Your task to perform on an android device: toggle notifications settings in the gmail app Image 0: 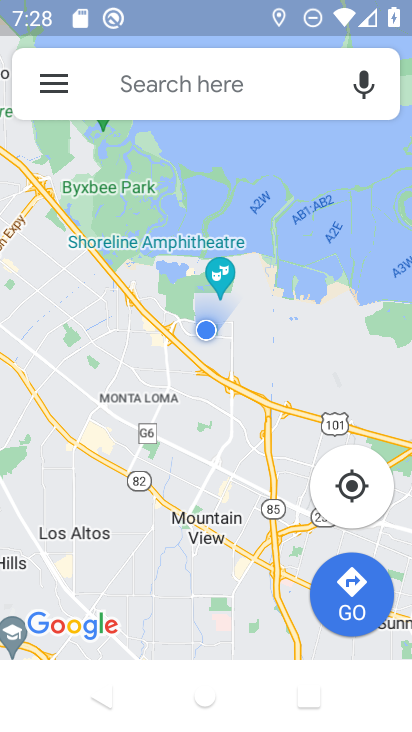
Step 0: press home button
Your task to perform on an android device: toggle notifications settings in the gmail app Image 1: 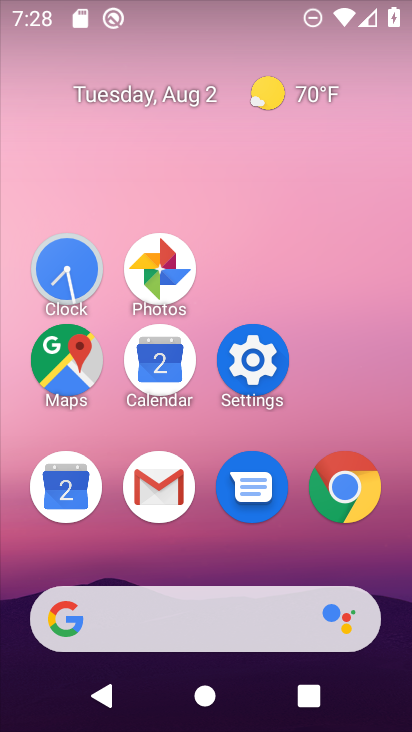
Step 1: click (155, 486)
Your task to perform on an android device: toggle notifications settings in the gmail app Image 2: 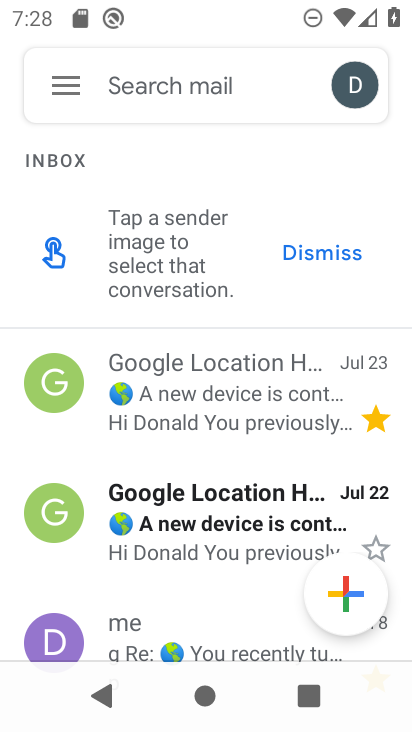
Step 2: click (66, 79)
Your task to perform on an android device: toggle notifications settings in the gmail app Image 3: 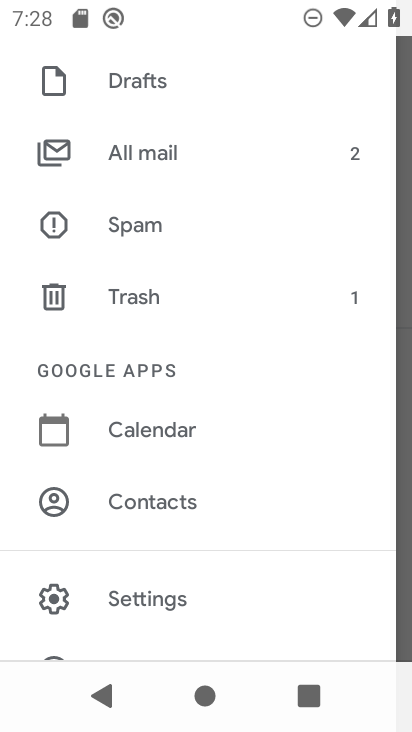
Step 3: click (144, 595)
Your task to perform on an android device: toggle notifications settings in the gmail app Image 4: 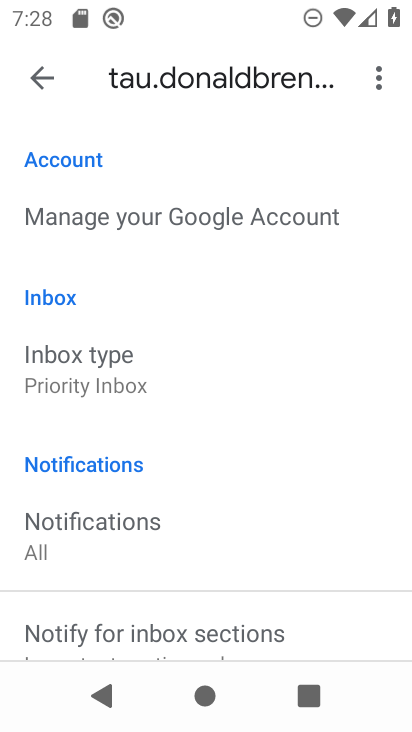
Step 4: click (35, 67)
Your task to perform on an android device: toggle notifications settings in the gmail app Image 5: 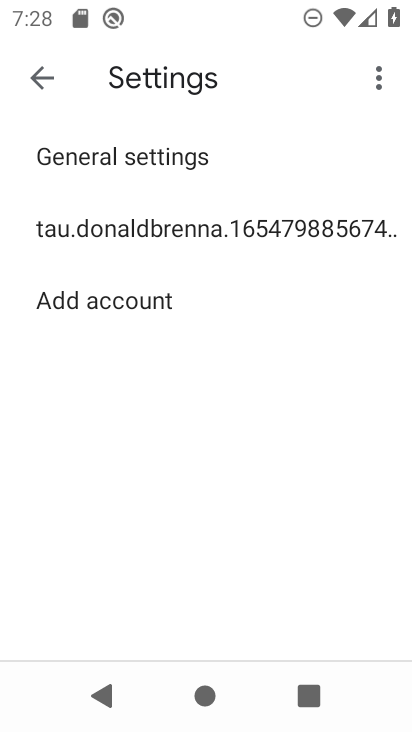
Step 5: click (116, 156)
Your task to perform on an android device: toggle notifications settings in the gmail app Image 6: 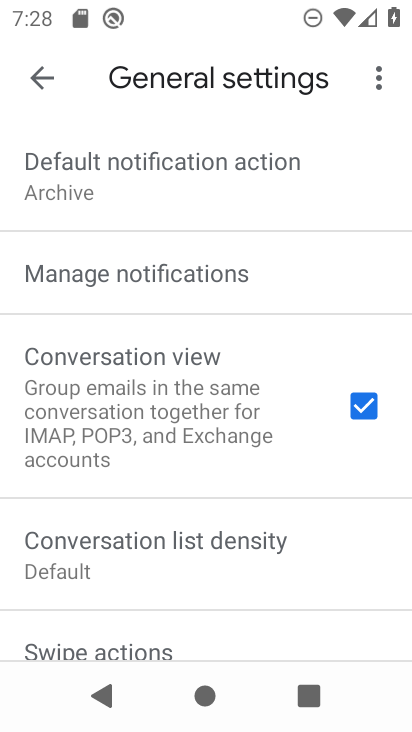
Step 6: click (143, 268)
Your task to perform on an android device: toggle notifications settings in the gmail app Image 7: 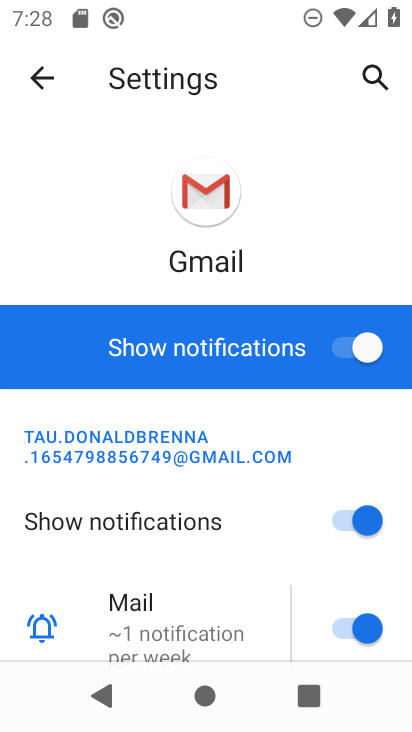
Step 7: click (361, 353)
Your task to perform on an android device: toggle notifications settings in the gmail app Image 8: 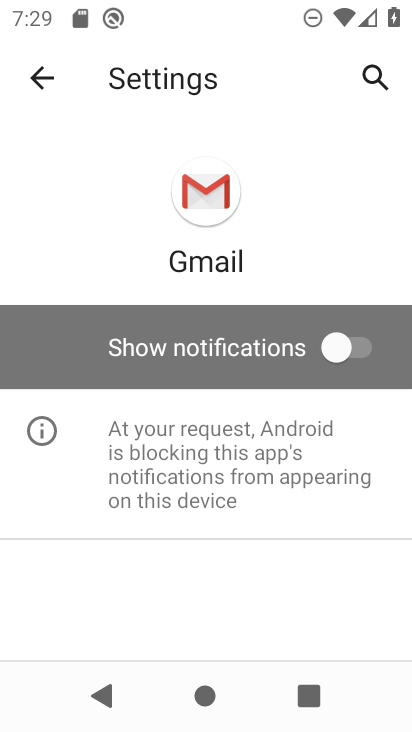
Step 8: task complete